Your task to perform on an android device: Go to location settings Image 0: 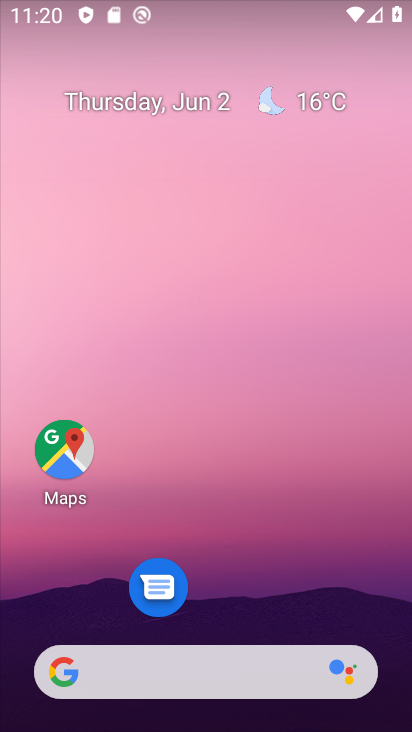
Step 0: click (335, 397)
Your task to perform on an android device: Go to location settings Image 1: 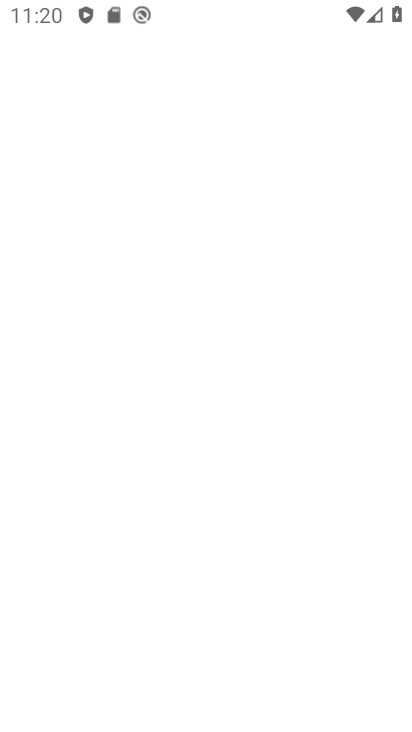
Step 1: drag from (219, 622) to (153, 110)
Your task to perform on an android device: Go to location settings Image 2: 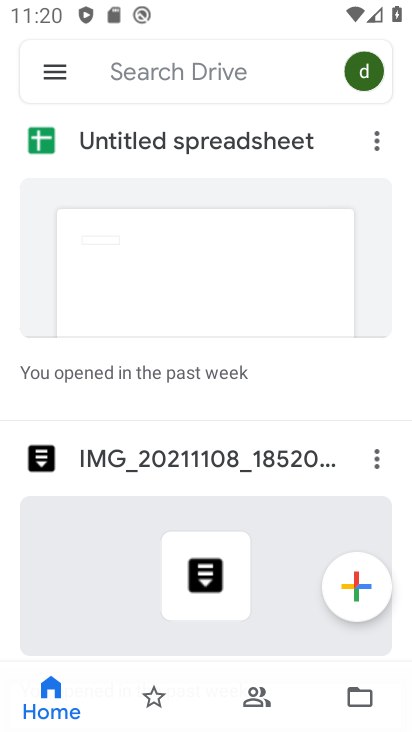
Step 2: press home button
Your task to perform on an android device: Go to location settings Image 3: 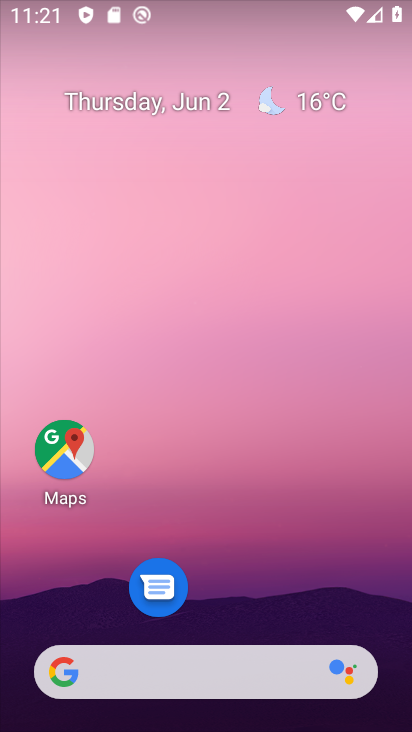
Step 3: drag from (207, 620) to (264, 67)
Your task to perform on an android device: Go to location settings Image 4: 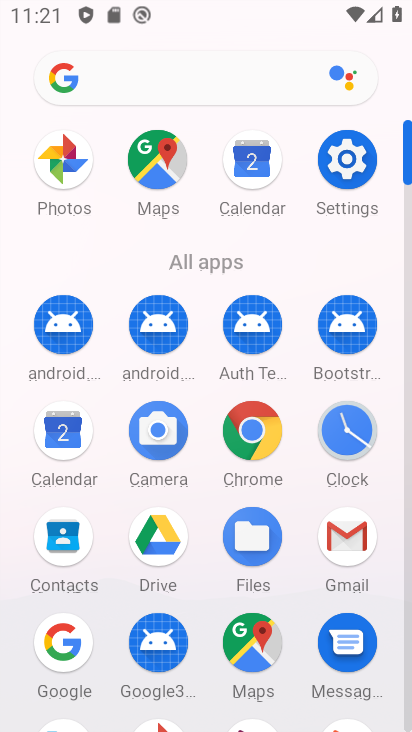
Step 4: click (357, 160)
Your task to perform on an android device: Go to location settings Image 5: 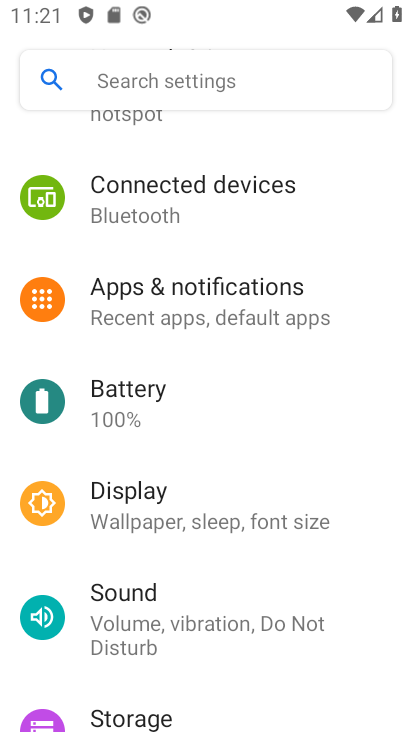
Step 5: drag from (200, 596) to (165, 169)
Your task to perform on an android device: Go to location settings Image 6: 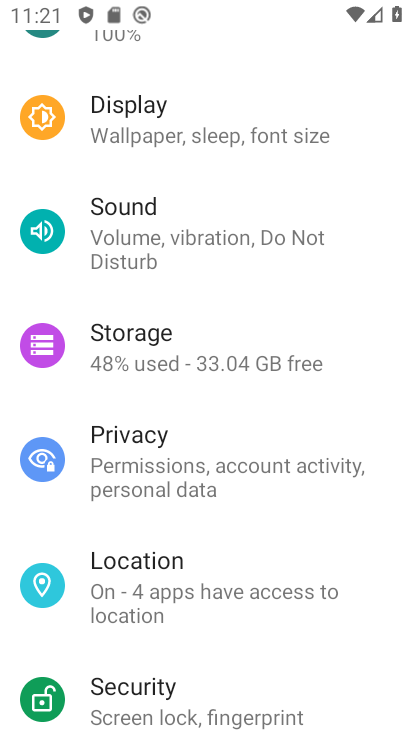
Step 6: click (235, 567)
Your task to perform on an android device: Go to location settings Image 7: 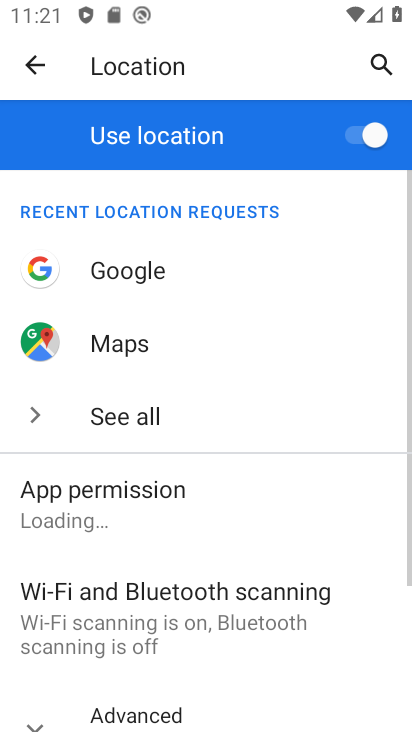
Step 7: task complete